Your task to perform on an android device: toggle airplane mode Image 0: 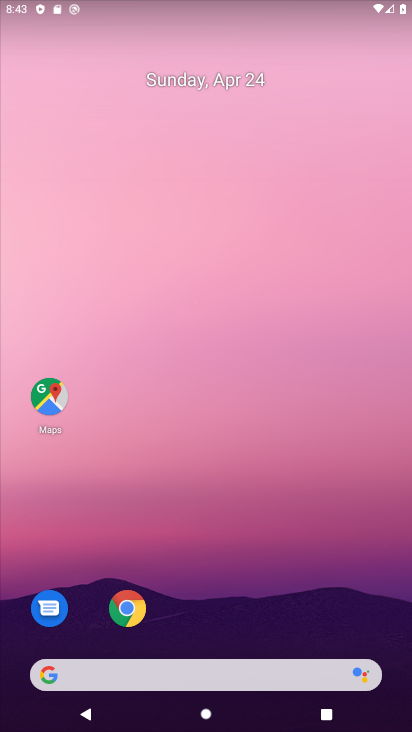
Step 0: drag from (222, 624) to (212, 199)
Your task to perform on an android device: toggle airplane mode Image 1: 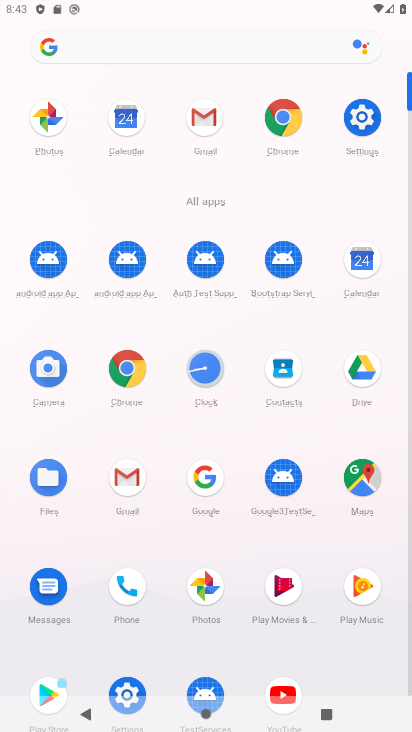
Step 1: click (350, 132)
Your task to perform on an android device: toggle airplane mode Image 2: 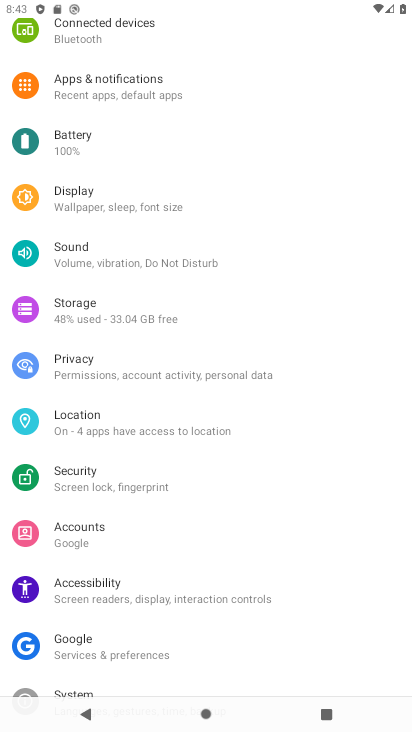
Step 2: drag from (201, 154) to (215, 491)
Your task to perform on an android device: toggle airplane mode Image 3: 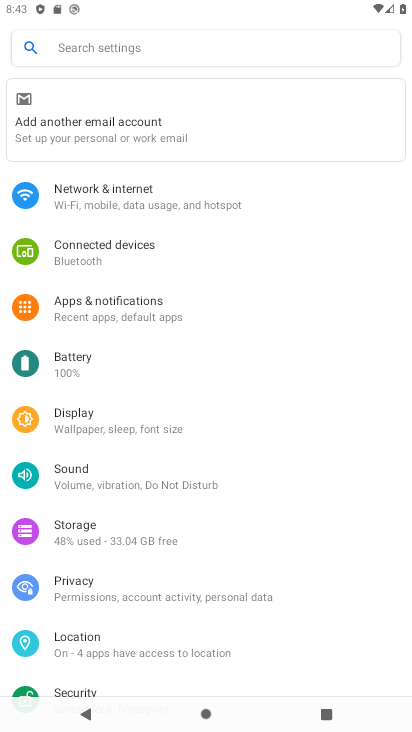
Step 3: click (180, 209)
Your task to perform on an android device: toggle airplane mode Image 4: 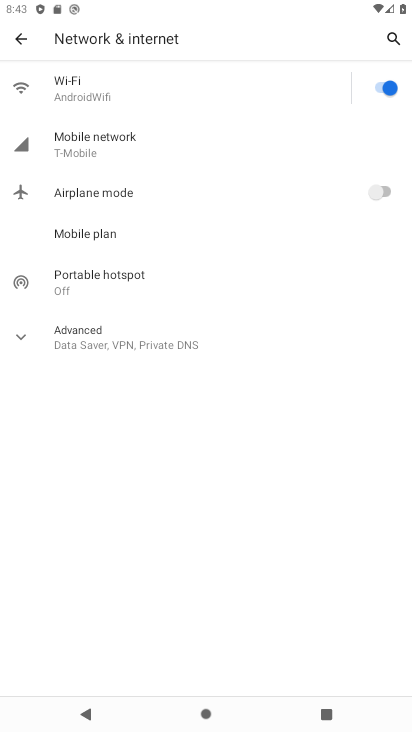
Step 4: click (375, 186)
Your task to perform on an android device: toggle airplane mode Image 5: 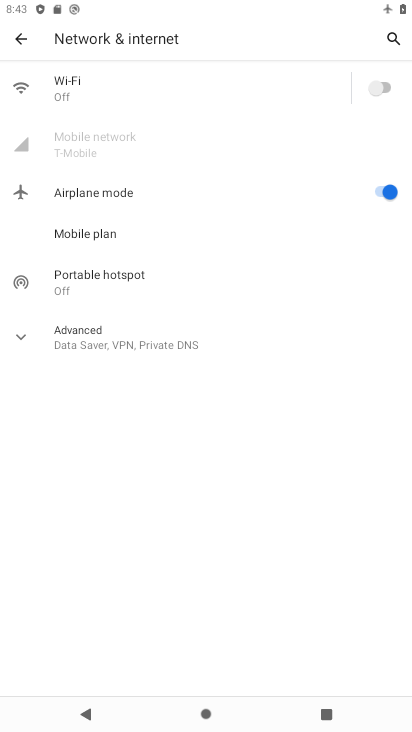
Step 5: task complete